Your task to perform on an android device: change the upload size in google photos Image 0: 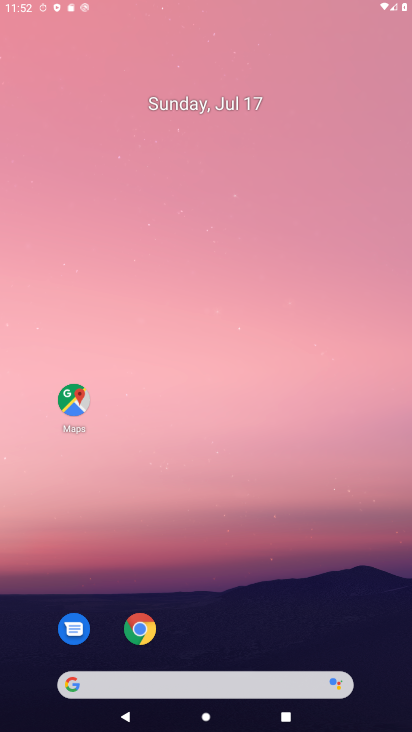
Step 0: press home button
Your task to perform on an android device: change the upload size in google photos Image 1: 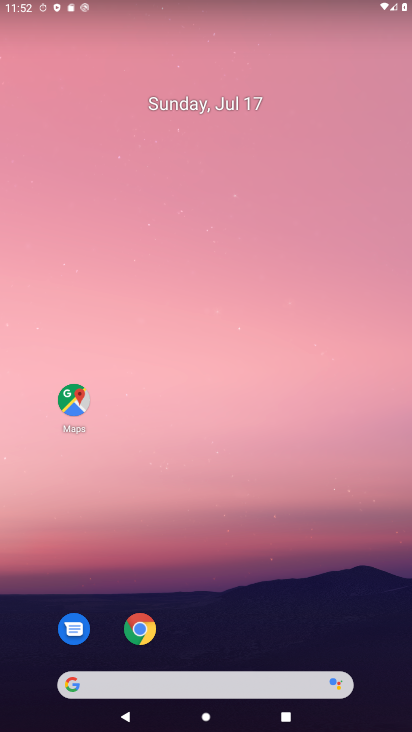
Step 1: drag from (224, 643) to (287, 258)
Your task to perform on an android device: change the upload size in google photos Image 2: 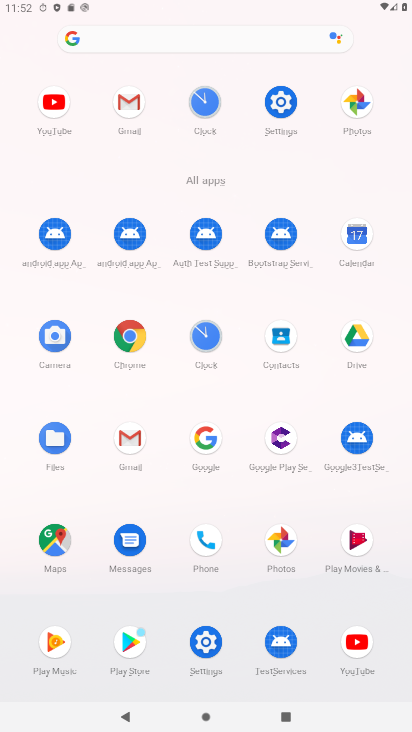
Step 2: click (277, 536)
Your task to perform on an android device: change the upload size in google photos Image 3: 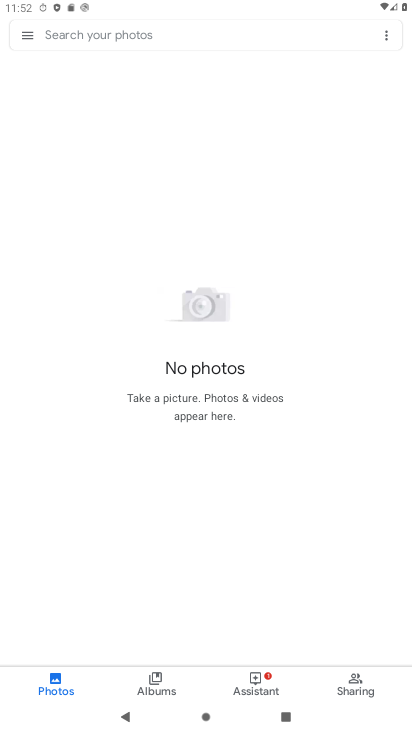
Step 3: click (24, 30)
Your task to perform on an android device: change the upload size in google photos Image 4: 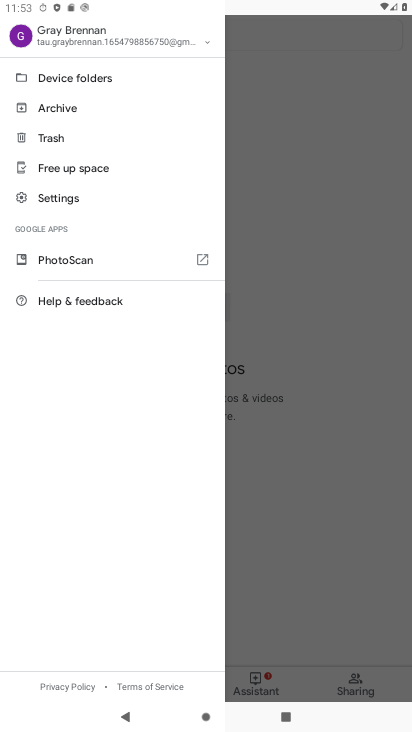
Step 4: click (63, 198)
Your task to perform on an android device: change the upload size in google photos Image 5: 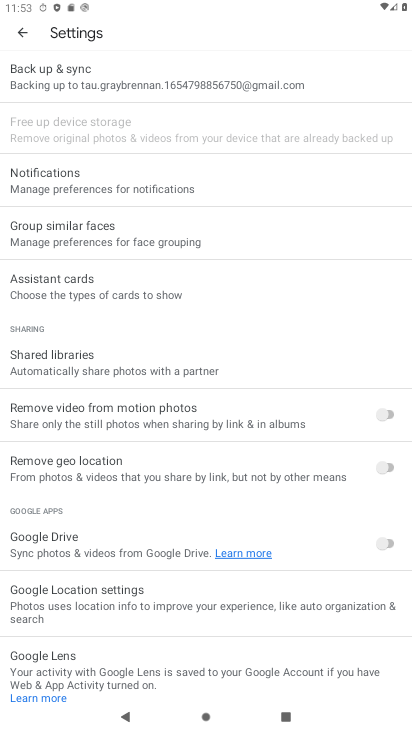
Step 5: click (101, 69)
Your task to perform on an android device: change the upload size in google photos Image 6: 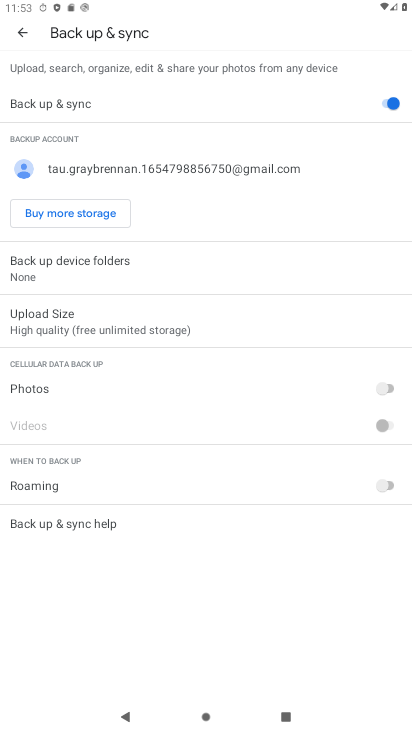
Step 6: click (60, 308)
Your task to perform on an android device: change the upload size in google photos Image 7: 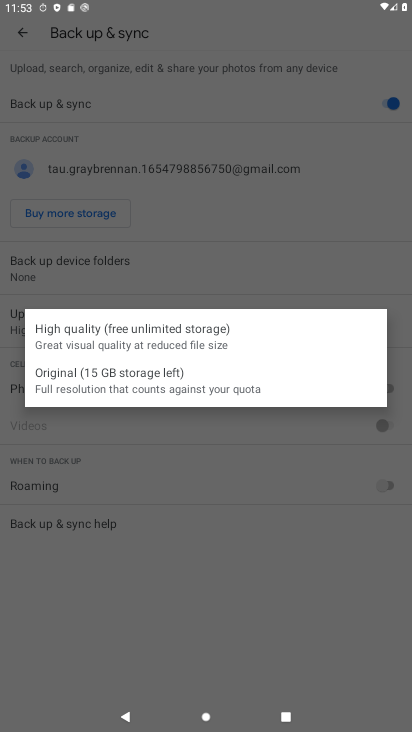
Step 7: click (90, 332)
Your task to perform on an android device: change the upload size in google photos Image 8: 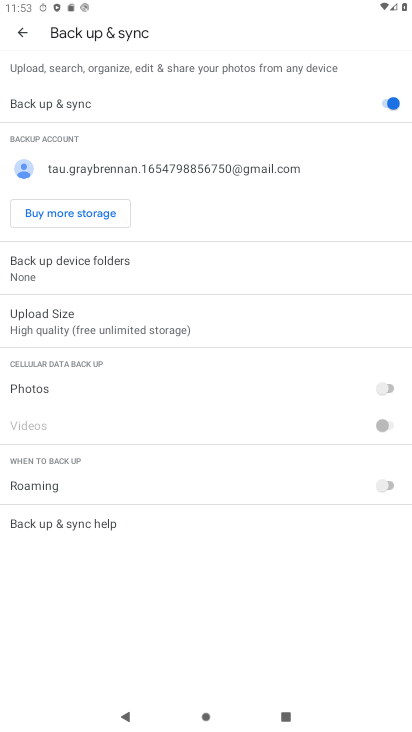
Step 8: task complete